Your task to perform on an android device: turn on data saver in the chrome app Image 0: 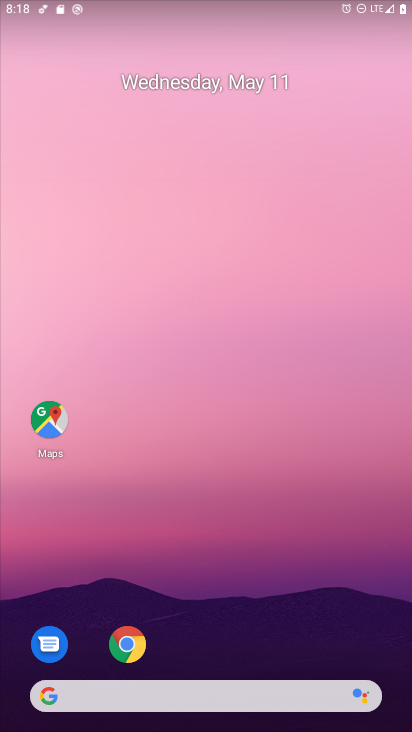
Step 0: click (127, 634)
Your task to perform on an android device: turn on data saver in the chrome app Image 1: 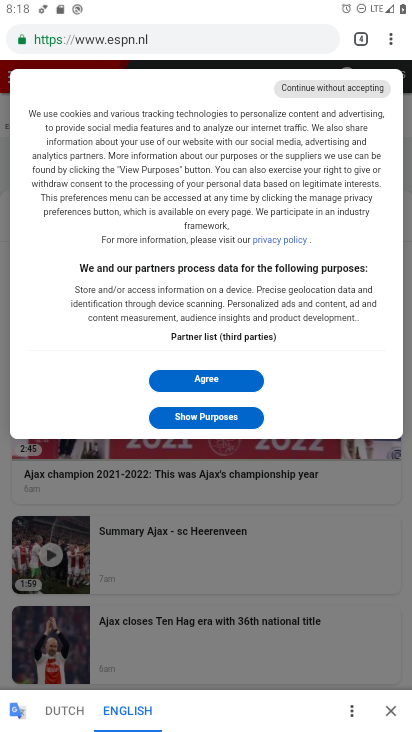
Step 1: click (389, 42)
Your task to perform on an android device: turn on data saver in the chrome app Image 2: 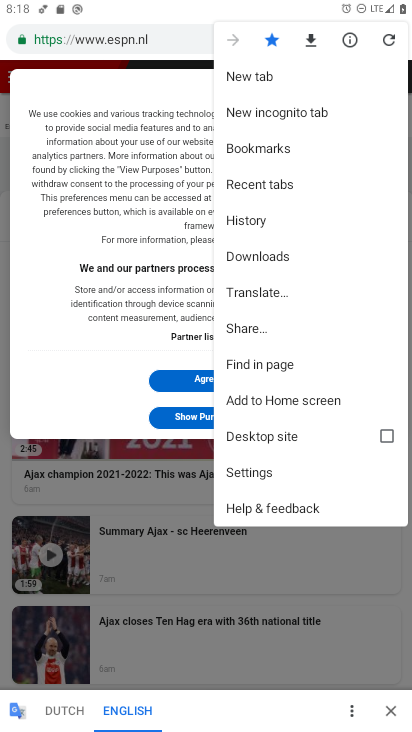
Step 2: click (251, 467)
Your task to perform on an android device: turn on data saver in the chrome app Image 3: 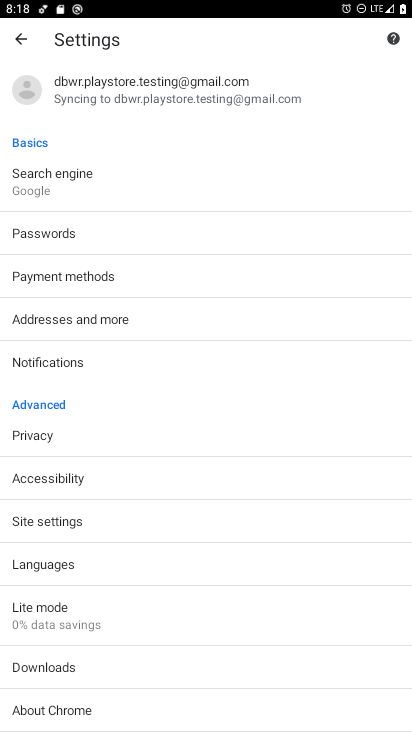
Step 3: click (36, 608)
Your task to perform on an android device: turn on data saver in the chrome app Image 4: 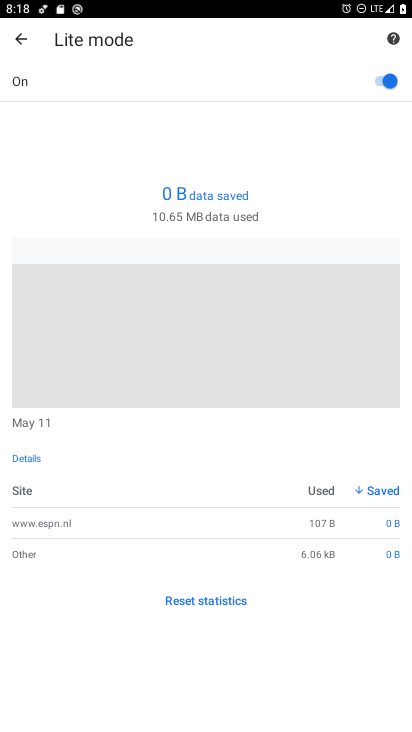
Step 4: task complete